Your task to perform on an android device: open a new tab in the chrome app Image 0: 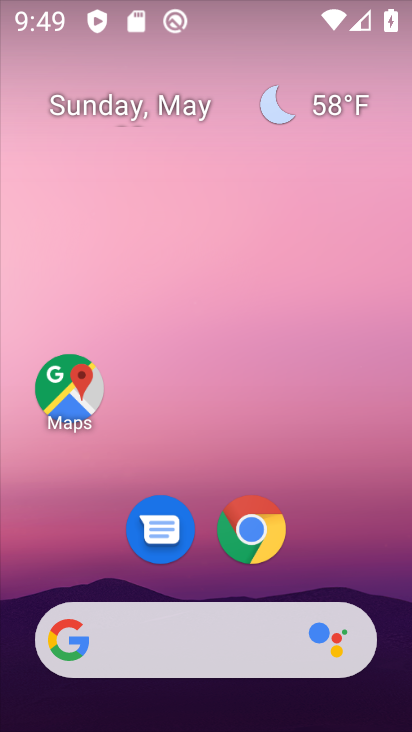
Step 0: click (262, 520)
Your task to perform on an android device: open a new tab in the chrome app Image 1: 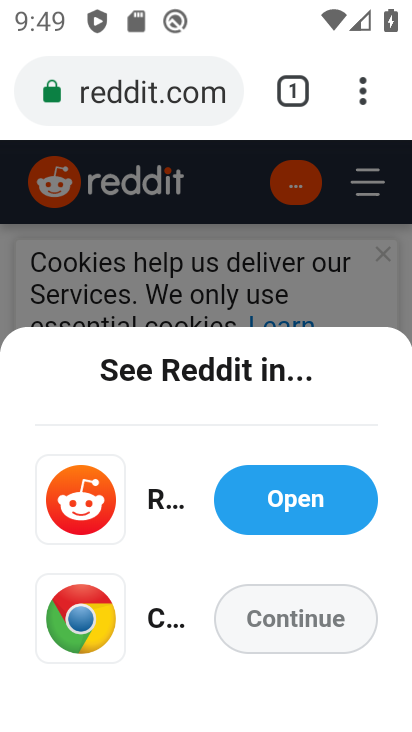
Step 1: click (367, 112)
Your task to perform on an android device: open a new tab in the chrome app Image 2: 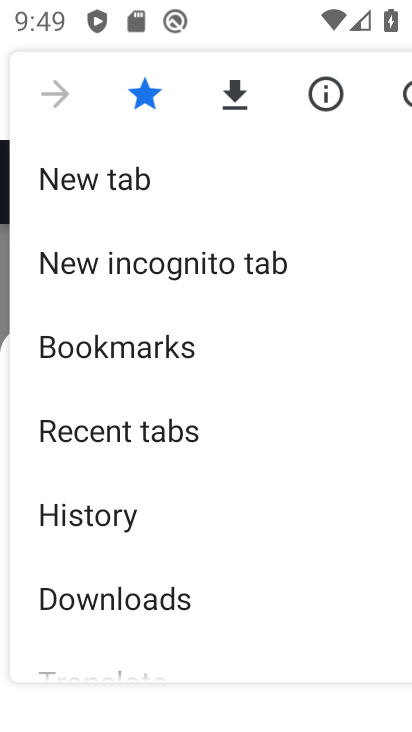
Step 2: click (120, 191)
Your task to perform on an android device: open a new tab in the chrome app Image 3: 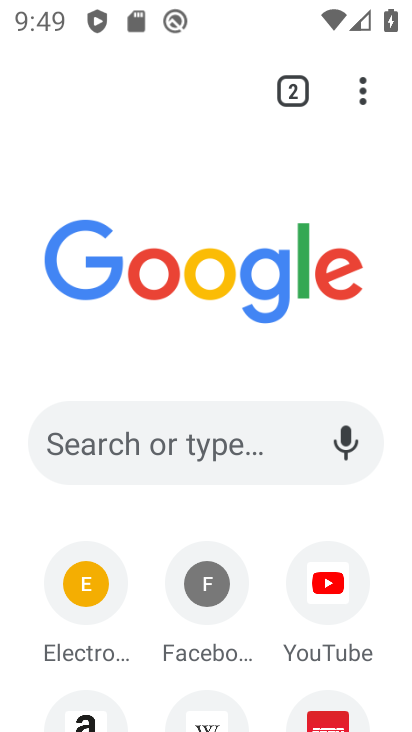
Step 3: task complete